Your task to perform on an android device: create a new album in the google photos Image 0: 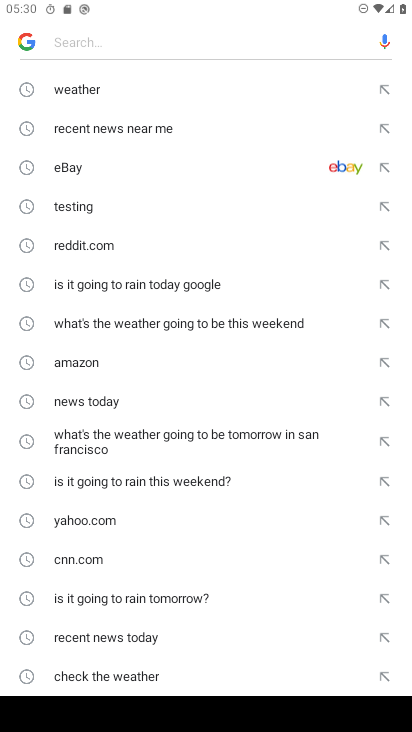
Step 0: press home button
Your task to perform on an android device: create a new album in the google photos Image 1: 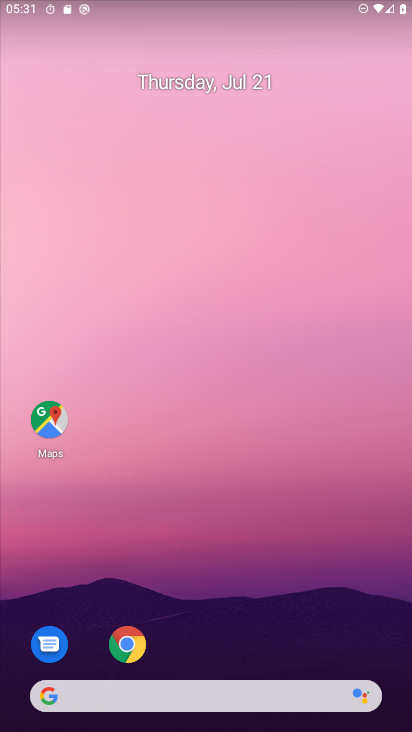
Step 1: drag from (207, 622) to (189, 134)
Your task to perform on an android device: create a new album in the google photos Image 2: 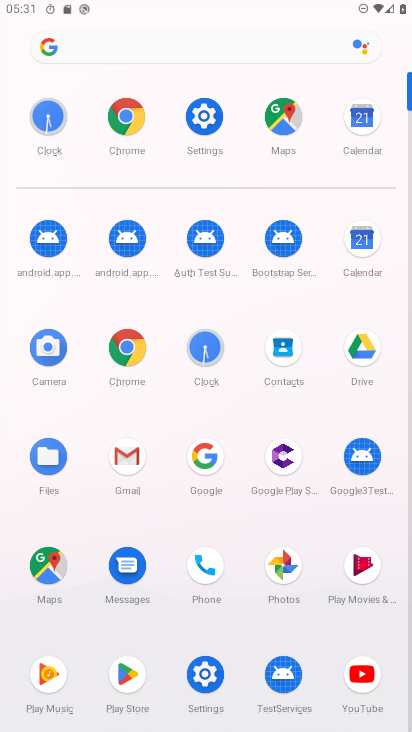
Step 2: click (286, 565)
Your task to perform on an android device: create a new album in the google photos Image 3: 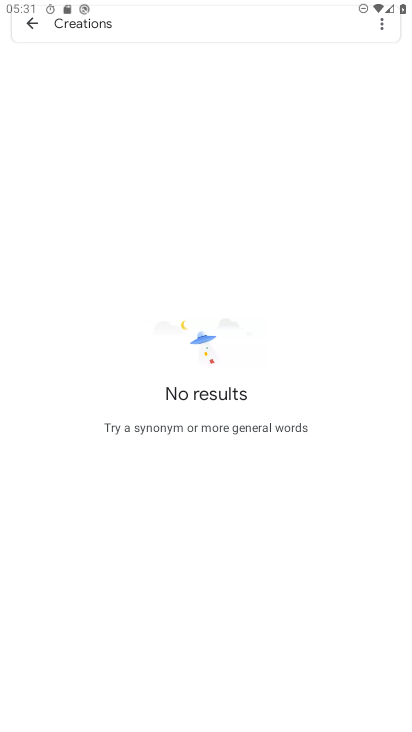
Step 3: click (31, 22)
Your task to perform on an android device: create a new album in the google photos Image 4: 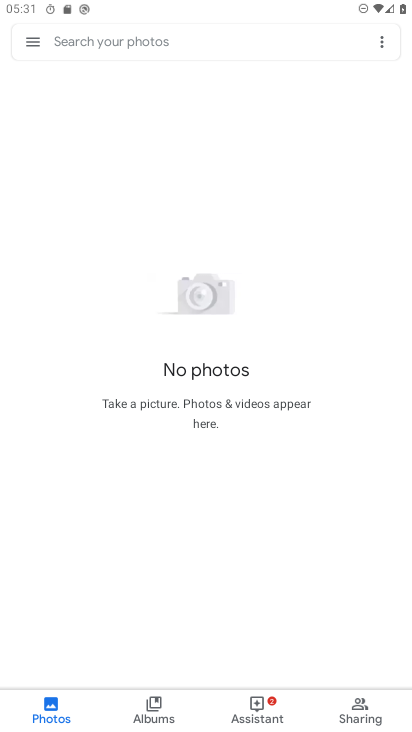
Step 4: click (30, 37)
Your task to perform on an android device: create a new album in the google photos Image 5: 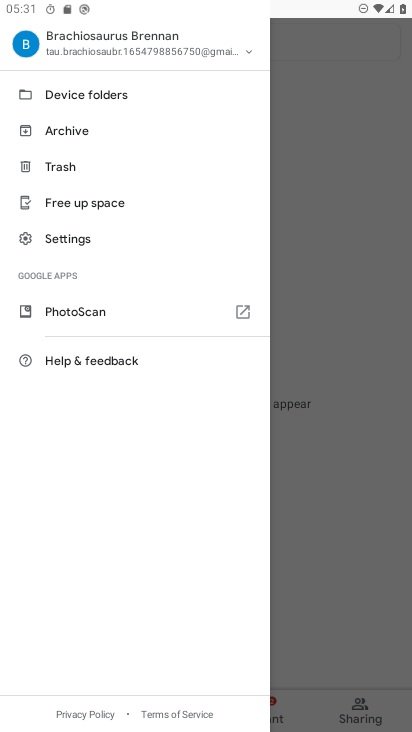
Step 5: task complete